Your task to perform on an android device: What is the recent news? Image 0: 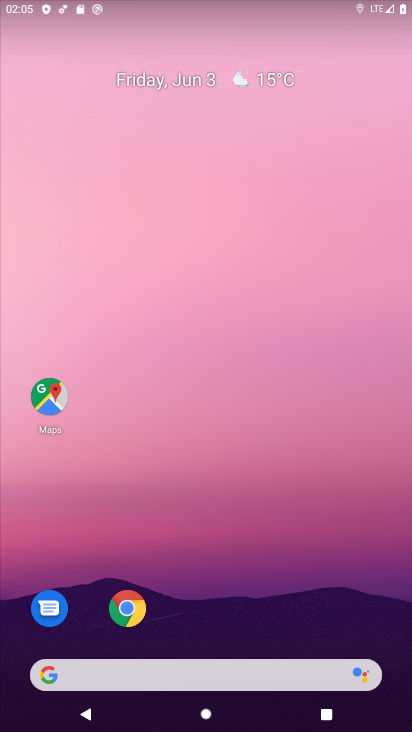
Step 0: drag from (287, 541) to (261, 65)
Your task to perform on an android device: What is the recent news? Image 1: 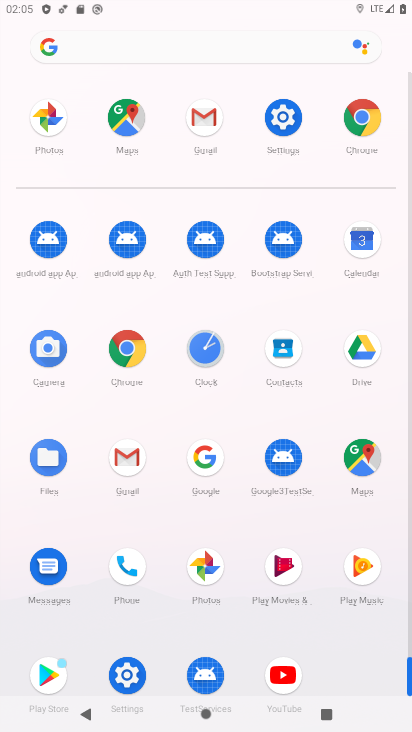
Step 1: click (358, 117)
Your task to perform on an android device: What is the recent news? Image 2: 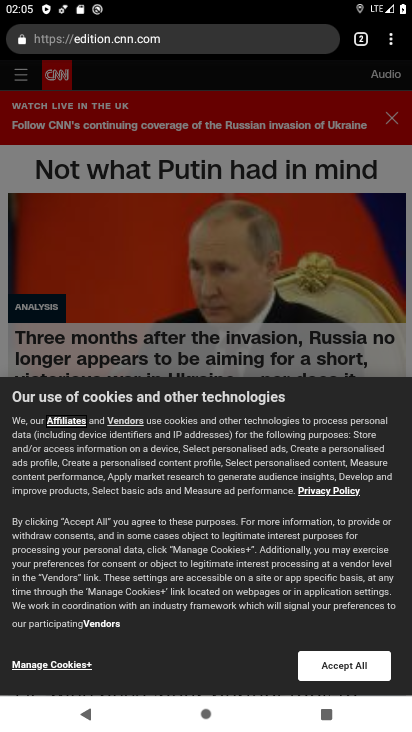
Step 2: click (152, 43)
Your task to perform on an android device: What is the recent news? Image 3: 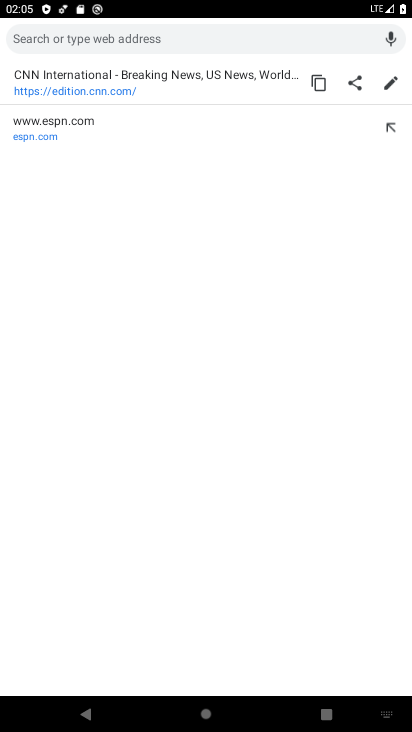
Step 3: type "news"
Your task to perform on an android device: What is the recent news? Image 4: 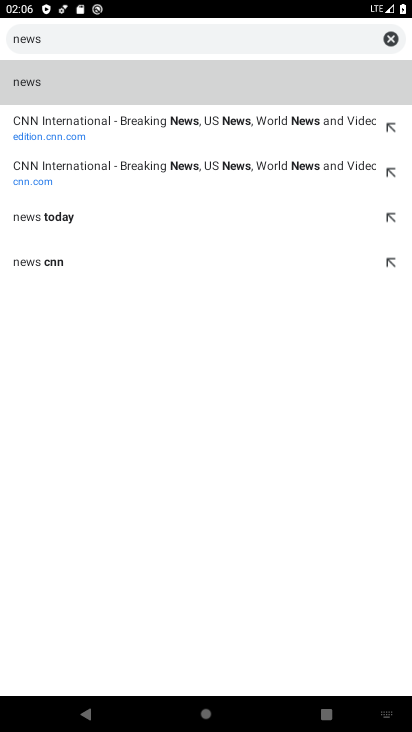
Step 4: click (34, 75)
Your task to perform on an android device: What is the recent news? Image 5: 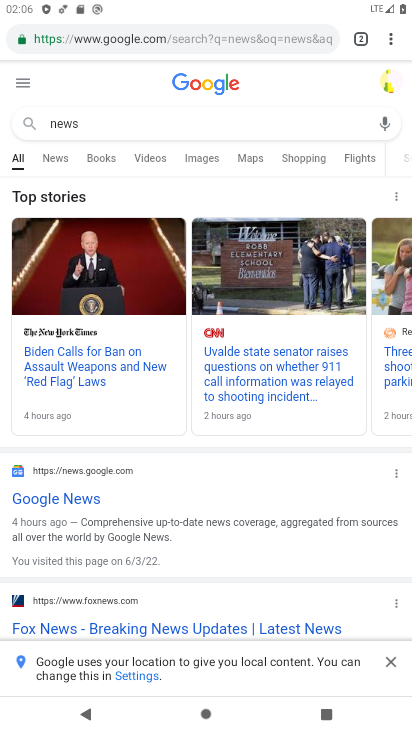
Step 5: click (57, 156)
Your task to perform on an android device: What is the recent news? Image 6: 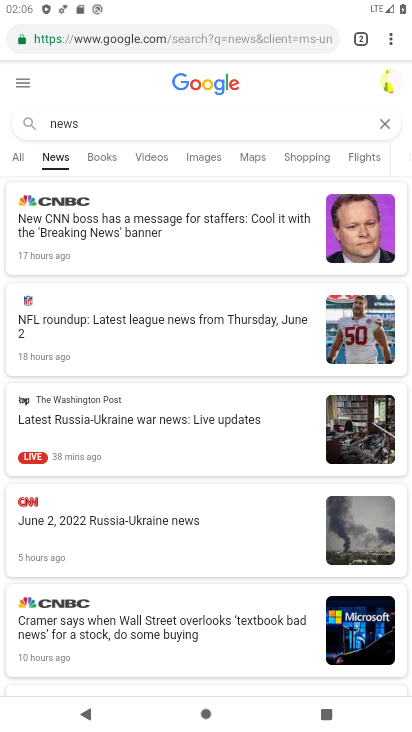
Step 6: task complete